Your task to perform on an android device: What's on my calendar tomorrow? Image 0: 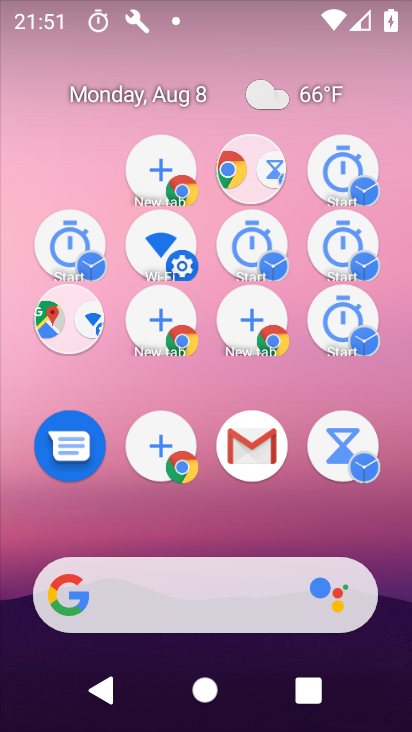
Step 0: drag from (190, 635) to (157, 367)
Your task to perform on an android device: What's on my calendar tomorrow? Image 1: 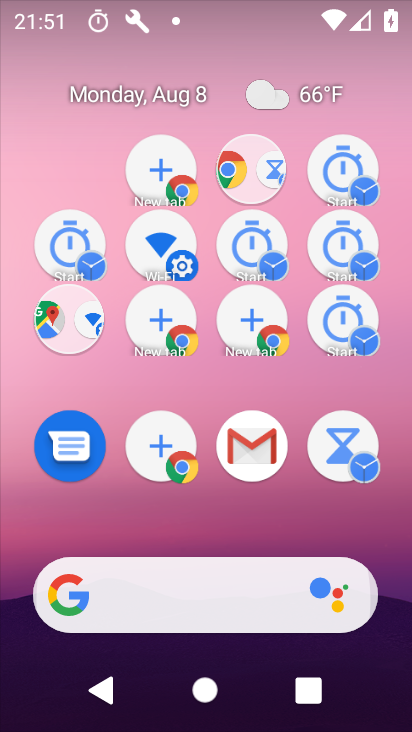
Step 1: drag from (88, 589) to (234, 249)
Your task to perform on an android device: What's on my calendar tomorrow? Image 2: 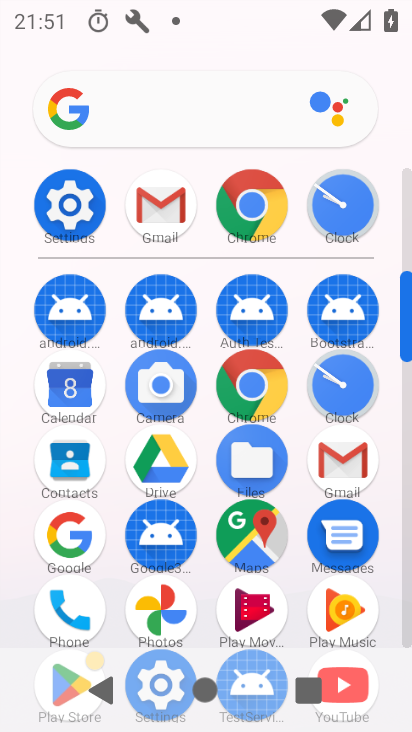
Step 2: click (76, 393)
Your task to perform on an android device: What's on my calendar tomorrow? Image 3: 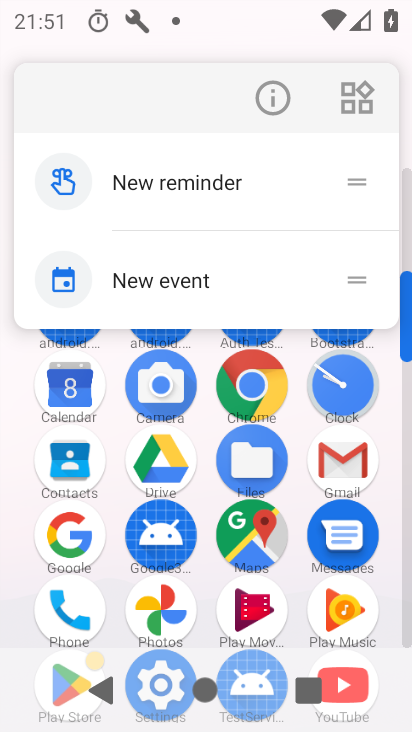
Step 3: click (77, 382)
Your task to perform on an android device: What's on my calendar tomorrow? Image 4: 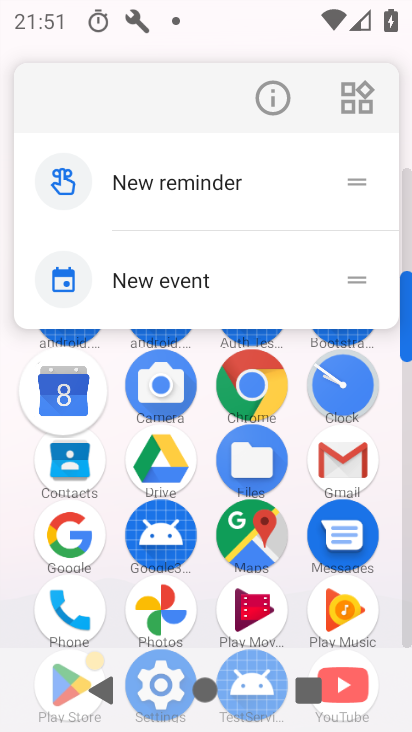
Step 4: click (70, 388)
Your task to perform on an android device: What's on my calendar tomorrow? Image 5: 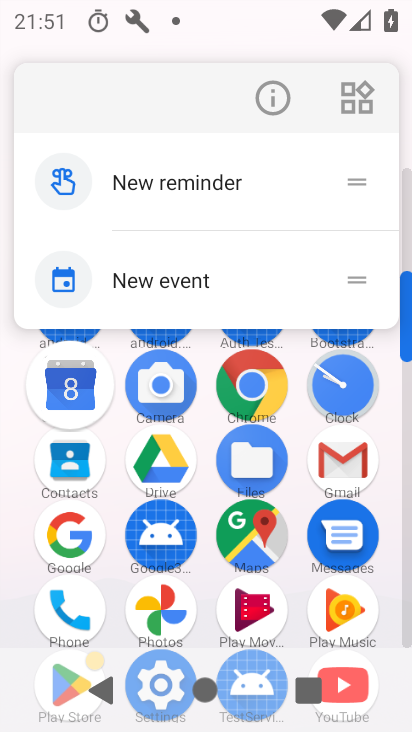
Step 5: drag from (73, 389) to (110, 400)
Your task to perform on an android device: What's on my calendar tomorrow? Image 6: 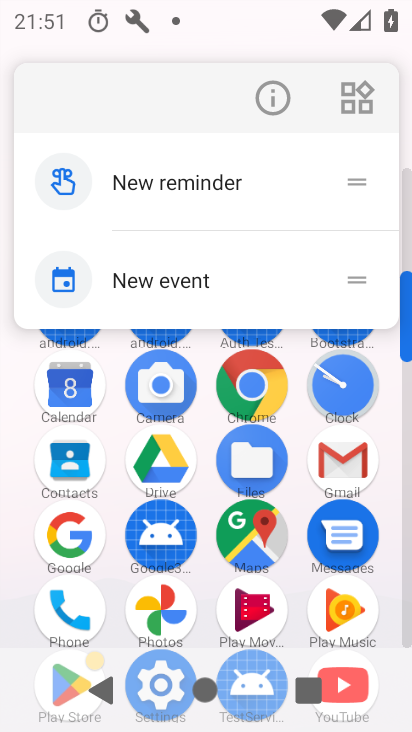
Step 6: click (53, 357)
Your task to perform on an android device: What's on my calendar tomorrow? Image 7: 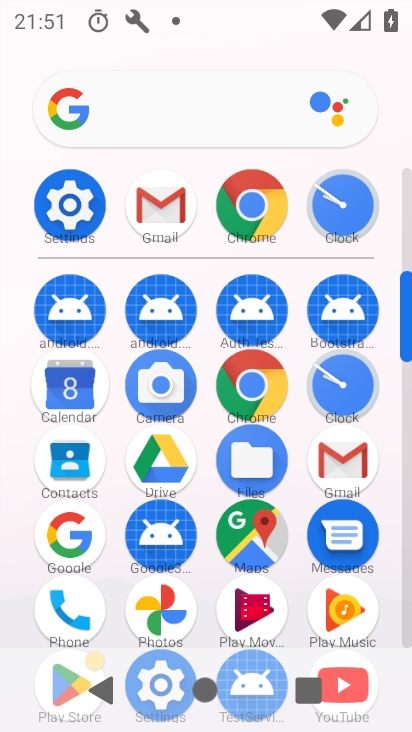
Step 7: click (73, 396)
Your task to perform on an android device: What's on my calendar tomorrow? Image 8: 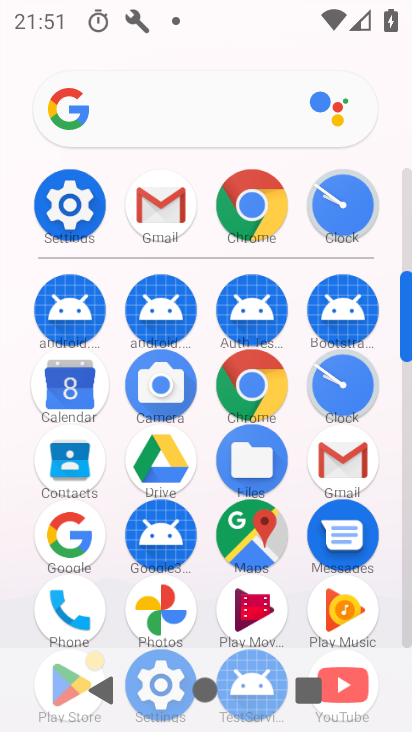
Step 8: click (73, 401)
Your task to perform on an android device: What's on my calendar tomorrow? Image 9: 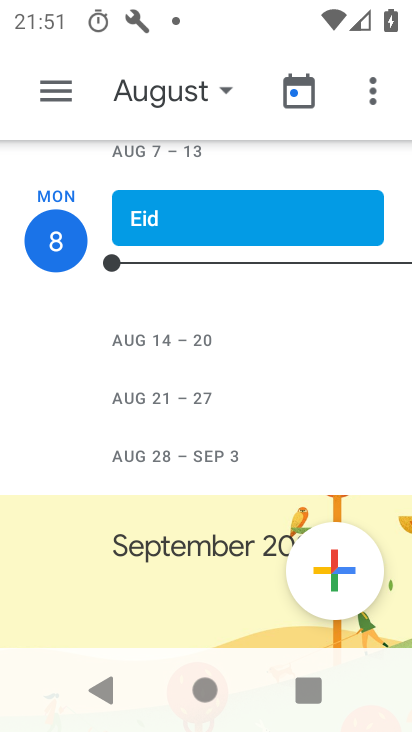
Step 9: click (216, 85)
Your task to perform on an android device: What's on my calendar tomorrow? Image 10: 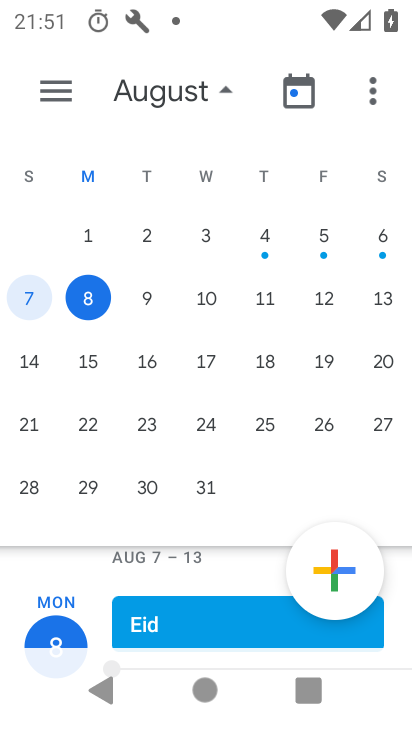
Step 10: click (147, 291)
Your task to perform on an android device: What's on my calendar tomorrow? Image 11: 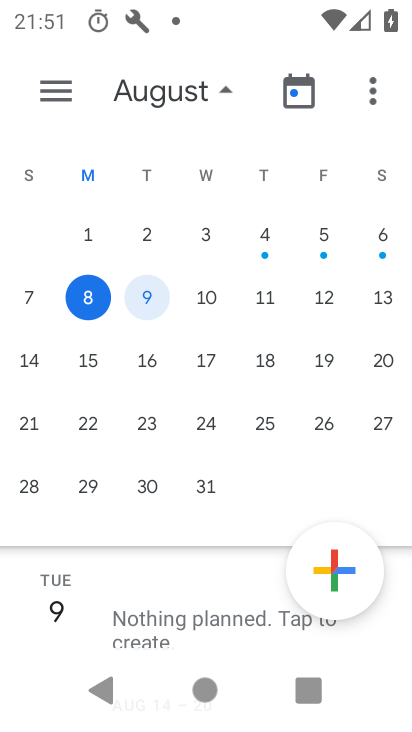
Step 11: click (143, 297)
Your task to perform on an android device: What's on my calendar tomorrow? Image 12: 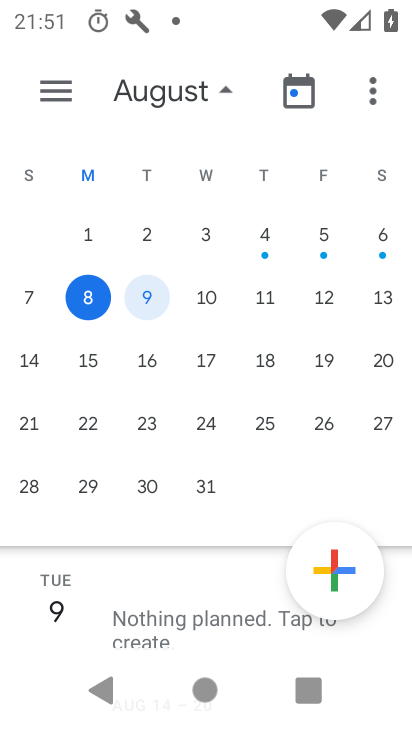
Step 12: click (142, 298)
Your task to perform on an android device: What's on my calendar tomorrow? Image 13: 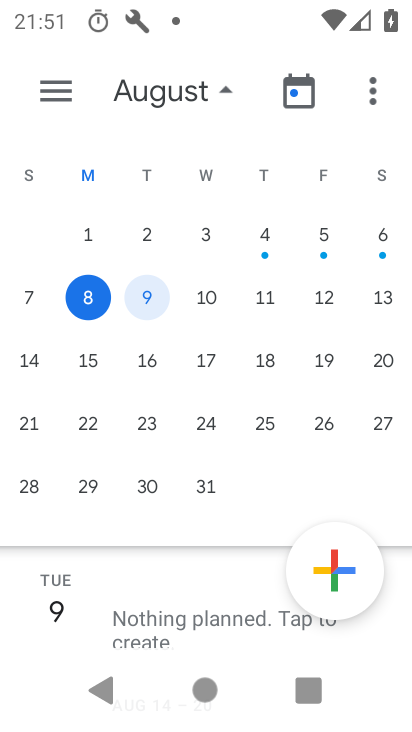
Step 13: click (142, 298)
Your task to perform on an android device: What's on my calendar tomorrow? Image 14: 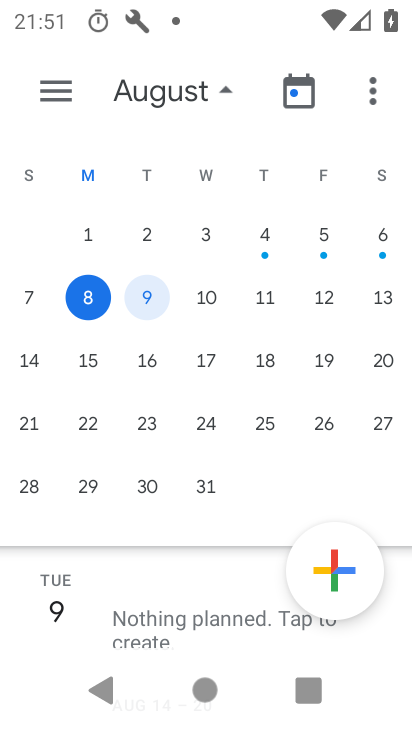
Step 14: click (143, 299)
Your task to perform on an android device: What's on my calendar tomorrow? Image 15: 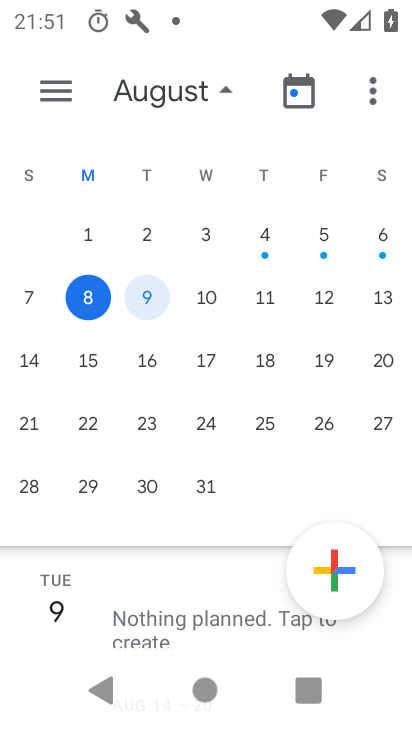
Step 15: click (143, 299)
Your task to perform on an android device: What's on my calendar tomorrow? Image 16: 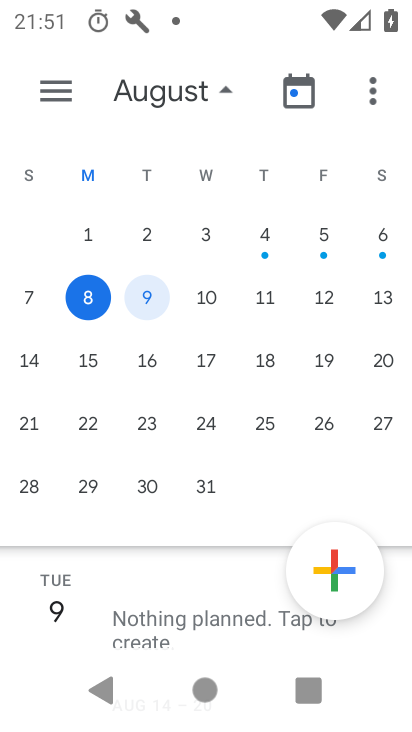
Step 16: task complete